Your task to perform on an android device: turn off improve location accuracy Image 0: 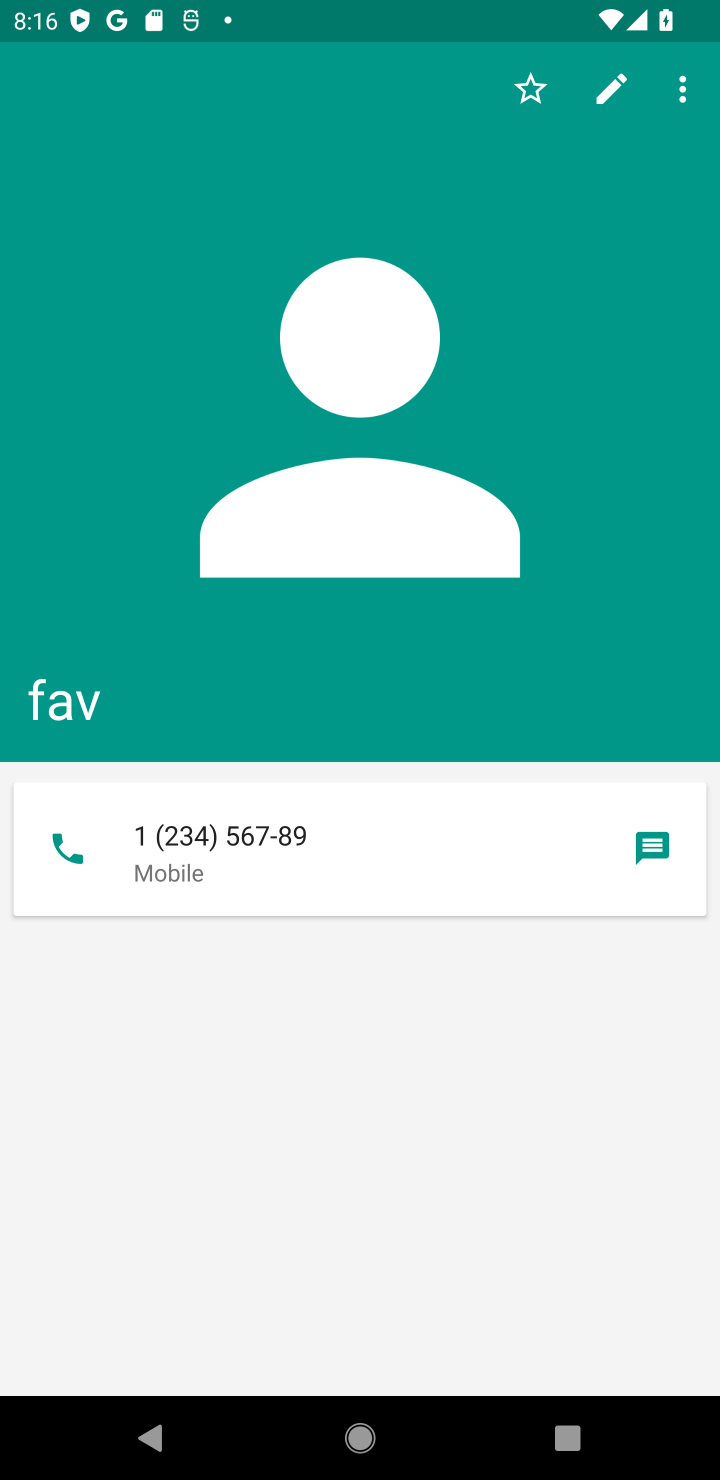
Step 0: press home button
Your task to perform on an android device: turn off improve location accuracy Image 1: 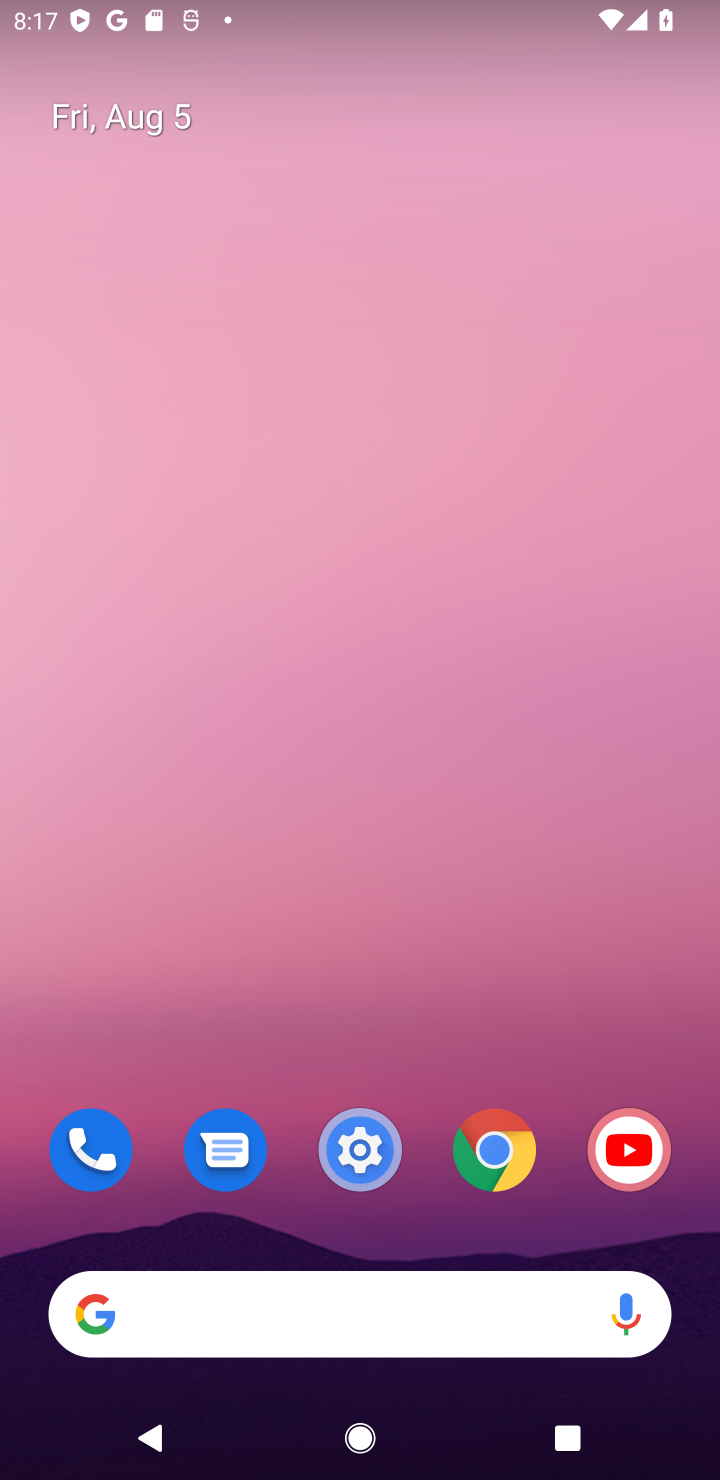
Step 1: drag from (450, 1060) to (463, 272)
Your task to perform on an android device: turn off improve location accuracy Image 2: 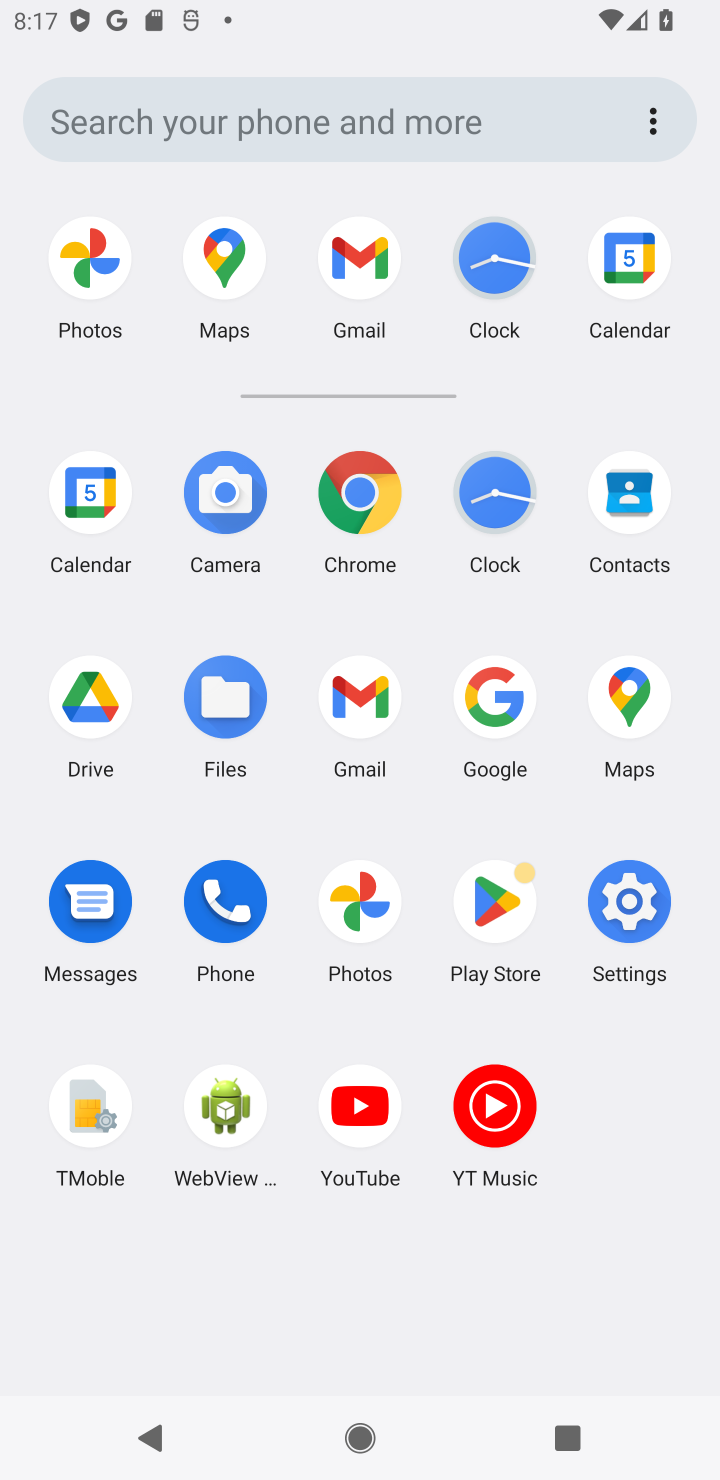
Step 2: click (632, 910)
Your task to perform on an android device: turn off improve location accuracy Image 3: 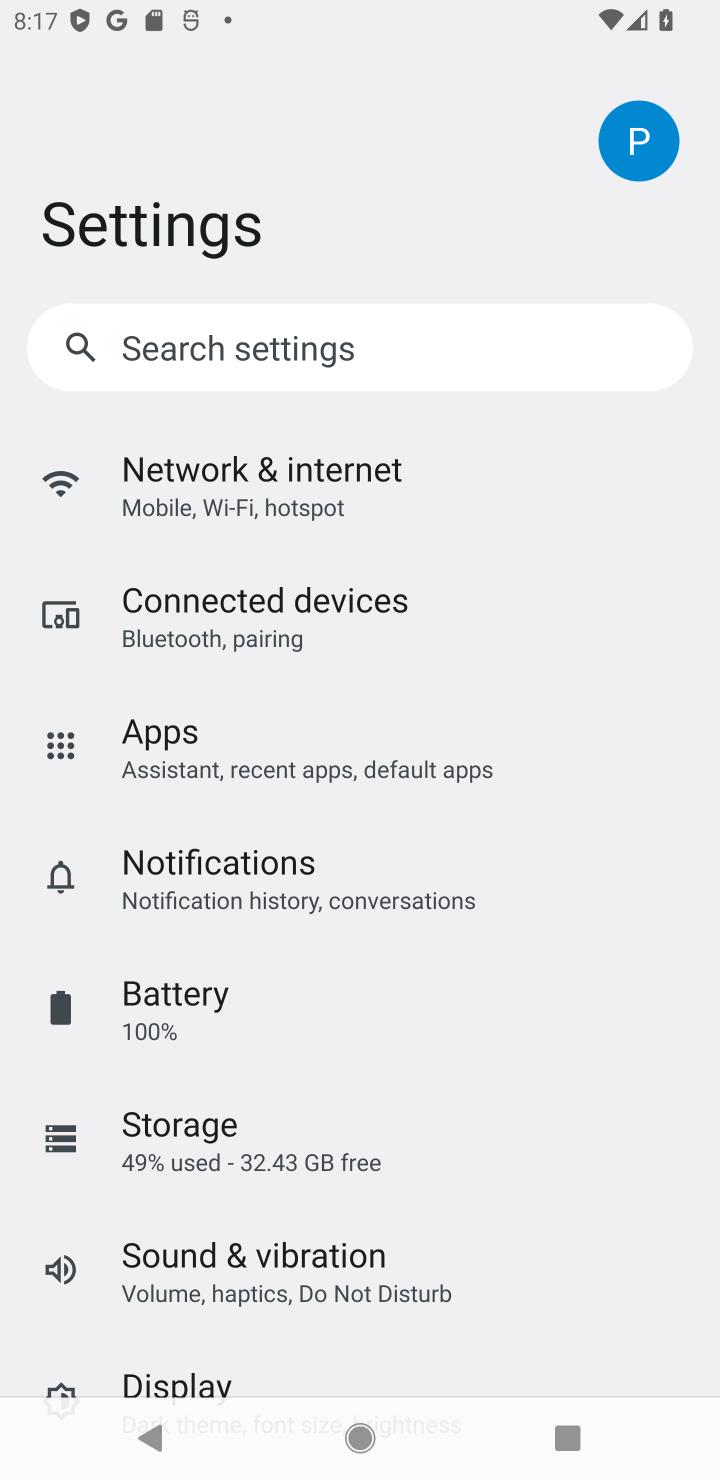
Step 3: drag from (634, 1059) to (624, 822)
Your task to perform on an android device: turn off improve location accuracy Image 4: 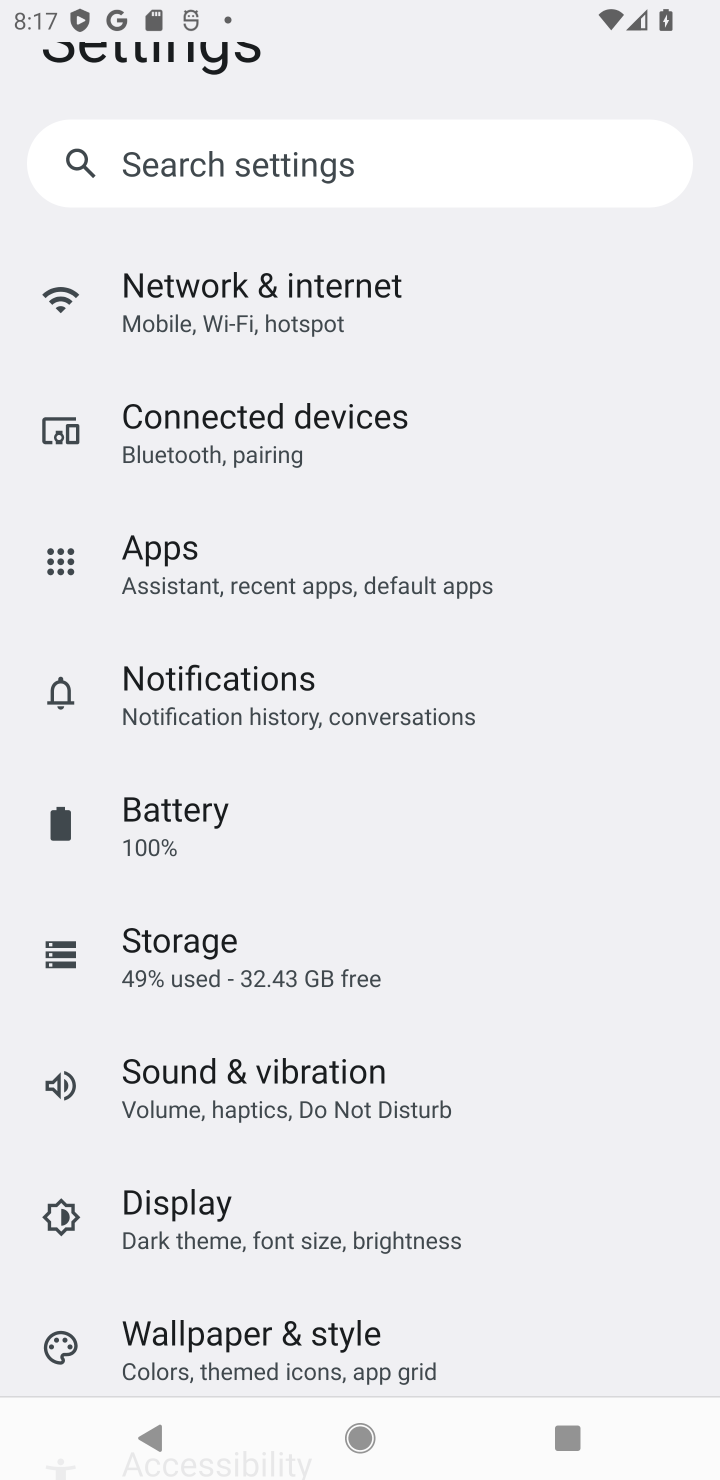
Step 4: drag from (568, 1045) to (566, 824)
Your task to perform on an android device: turn off improve location accuracy Image 5: 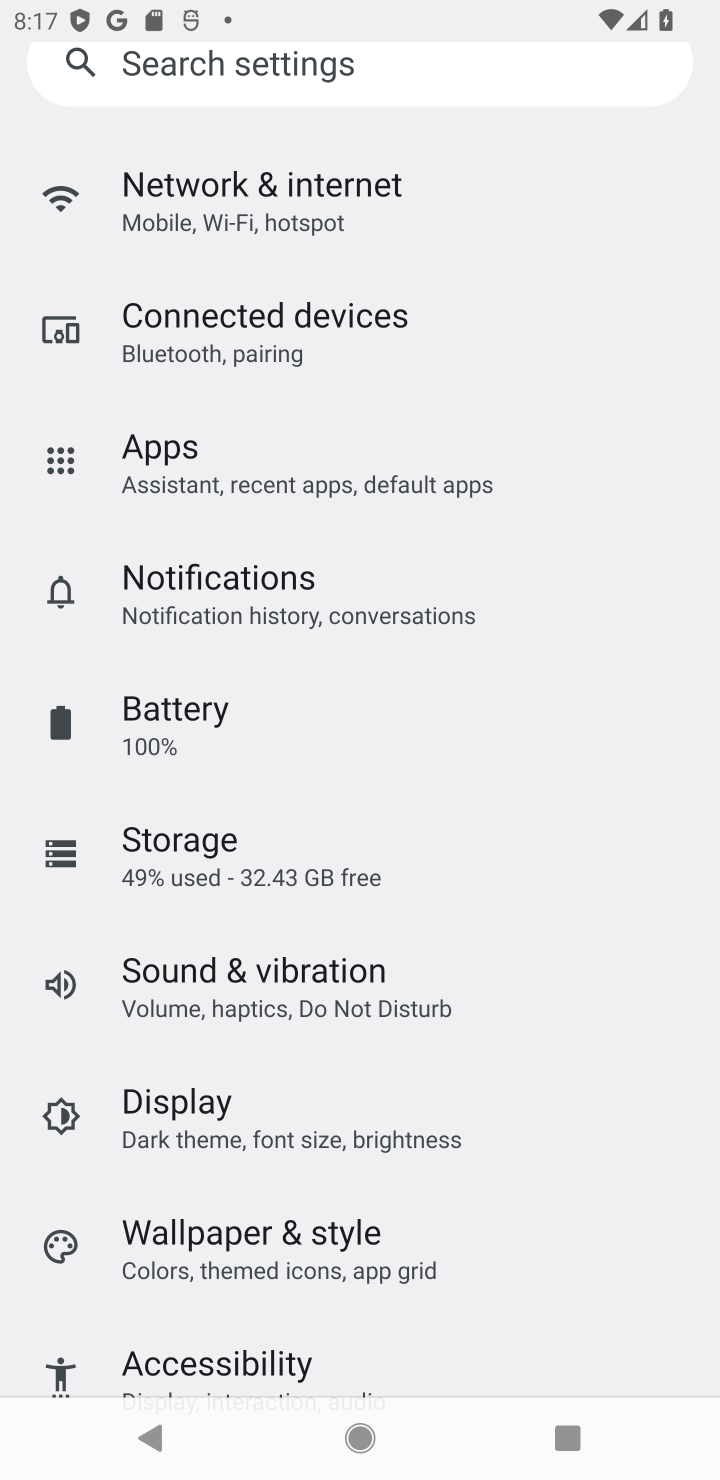
Step 5: drag from (562, 1017) to (530, 734)
Your task to perform on an android device: turn off improve location accuracy Image 6: 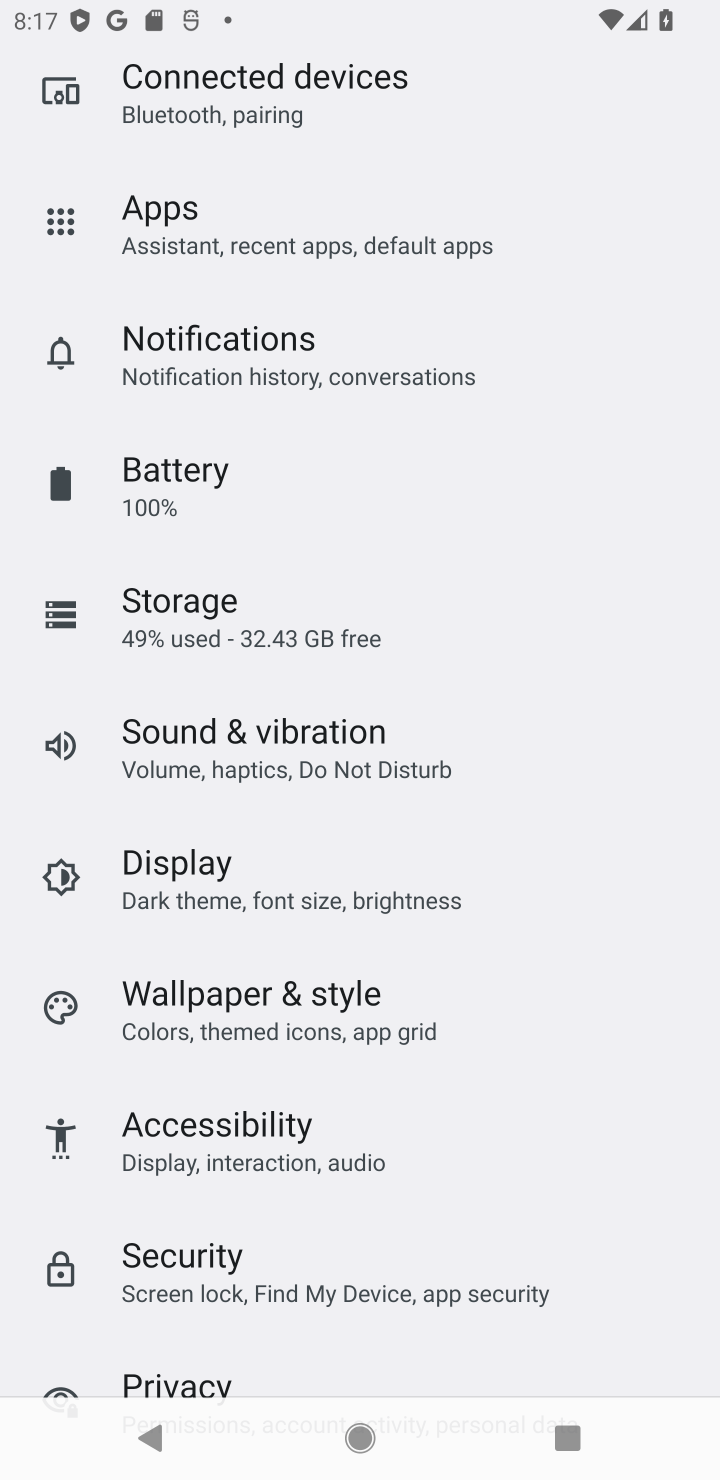
Step 6: drag from (560, 1132) to (564, 882)
Your task to perform on an android device: turn off improve location accuracy Image 7: 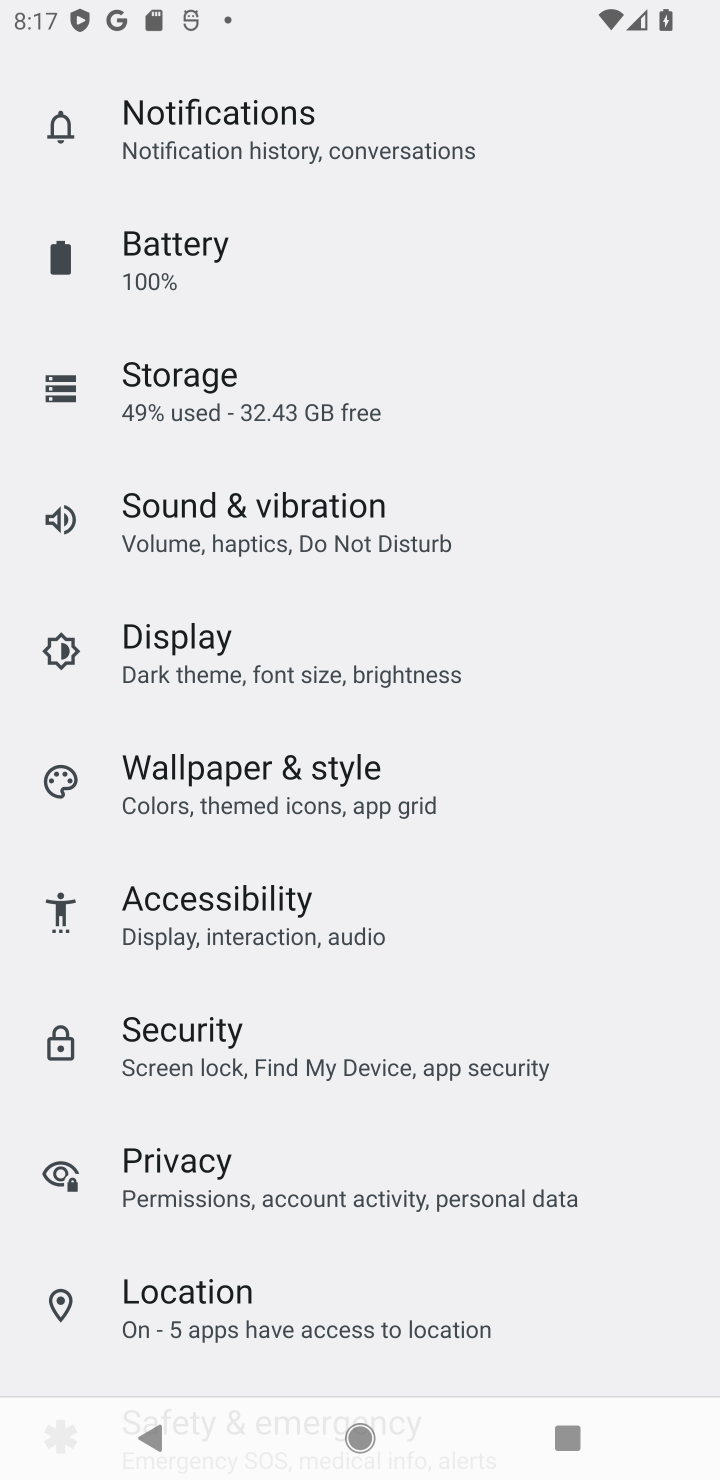
Step 7: drag from (589, 1151) to (600, 838)
Your task to perform on an android device: turn off improve location accuracy Image 8: 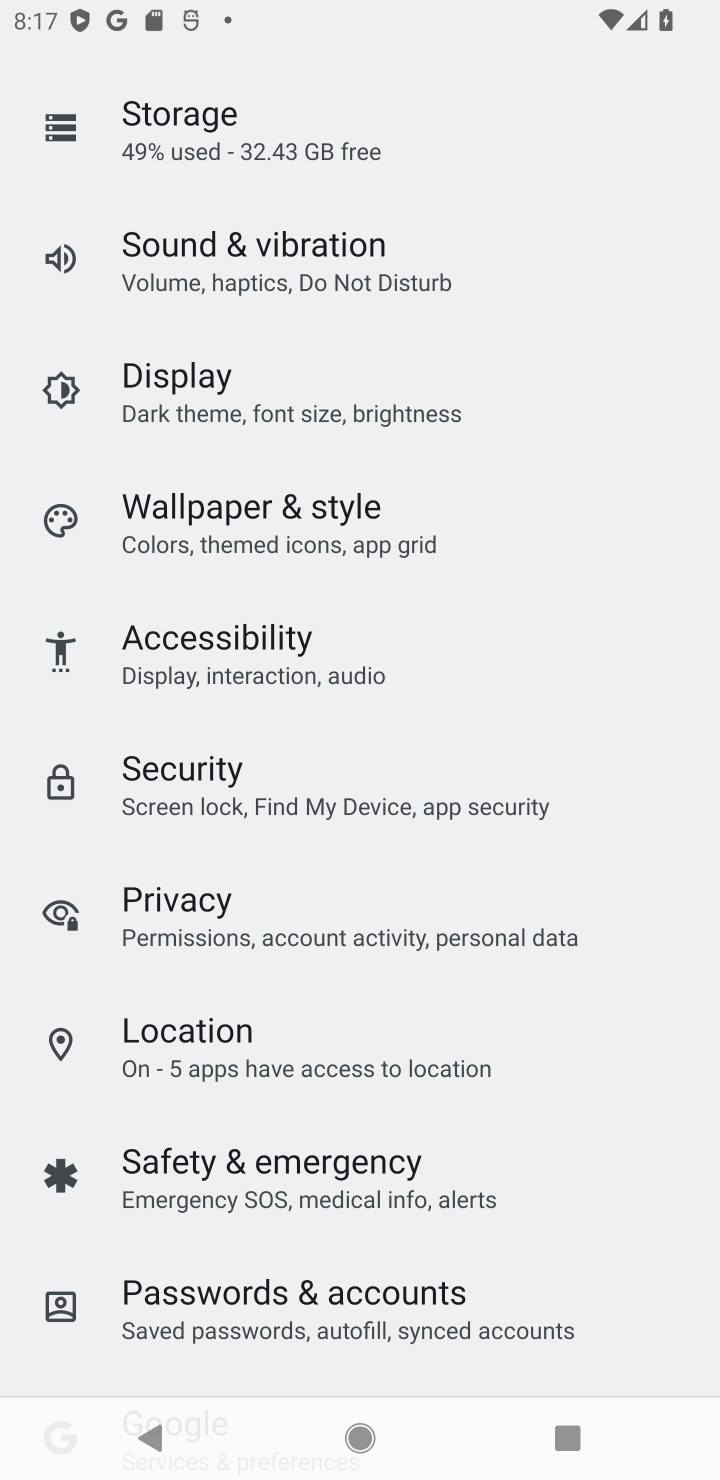
Step 8: drag from (584, 1098) to (580, 861)
Your task to perform on an android device: turn off improve location accuracy Image 9: 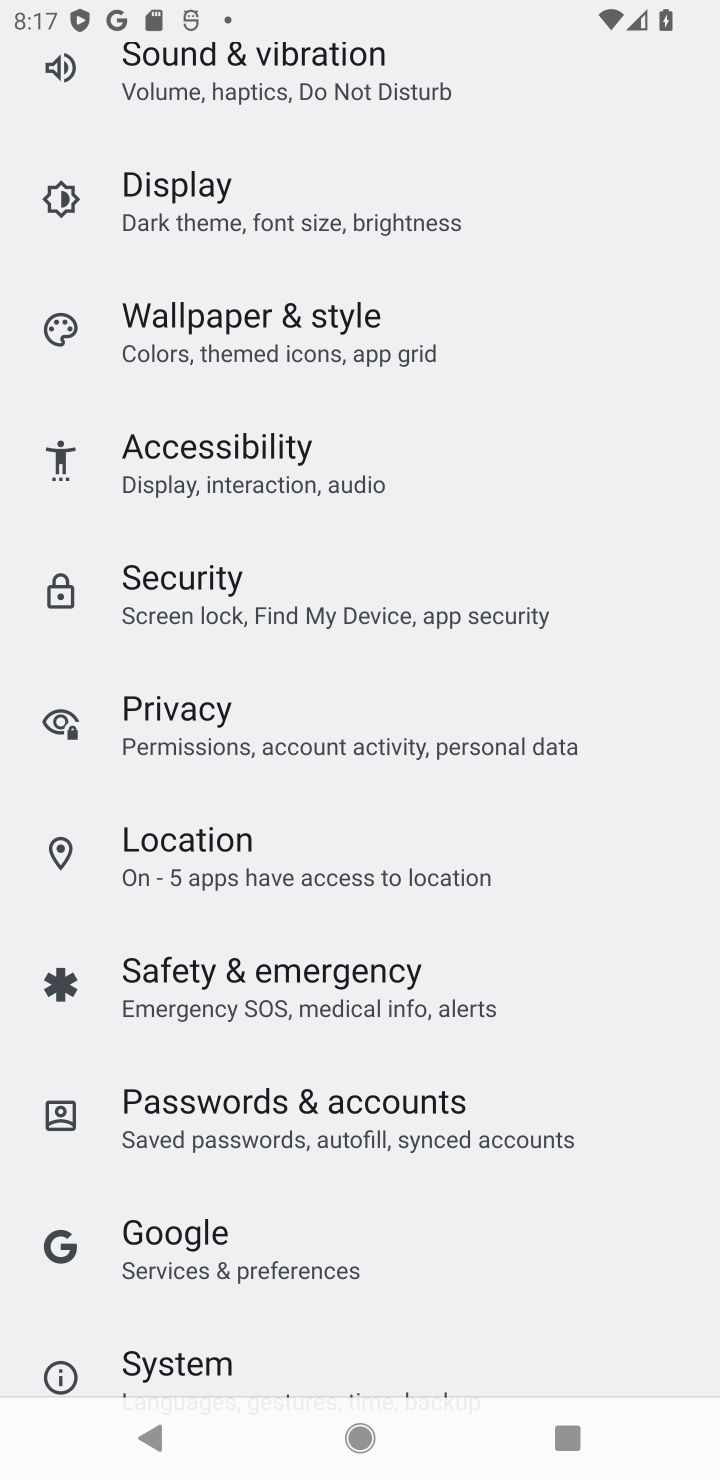
Step 9: click (503, 873)
Your task to perform on an android device: turn off improve location accuracy Image 10: 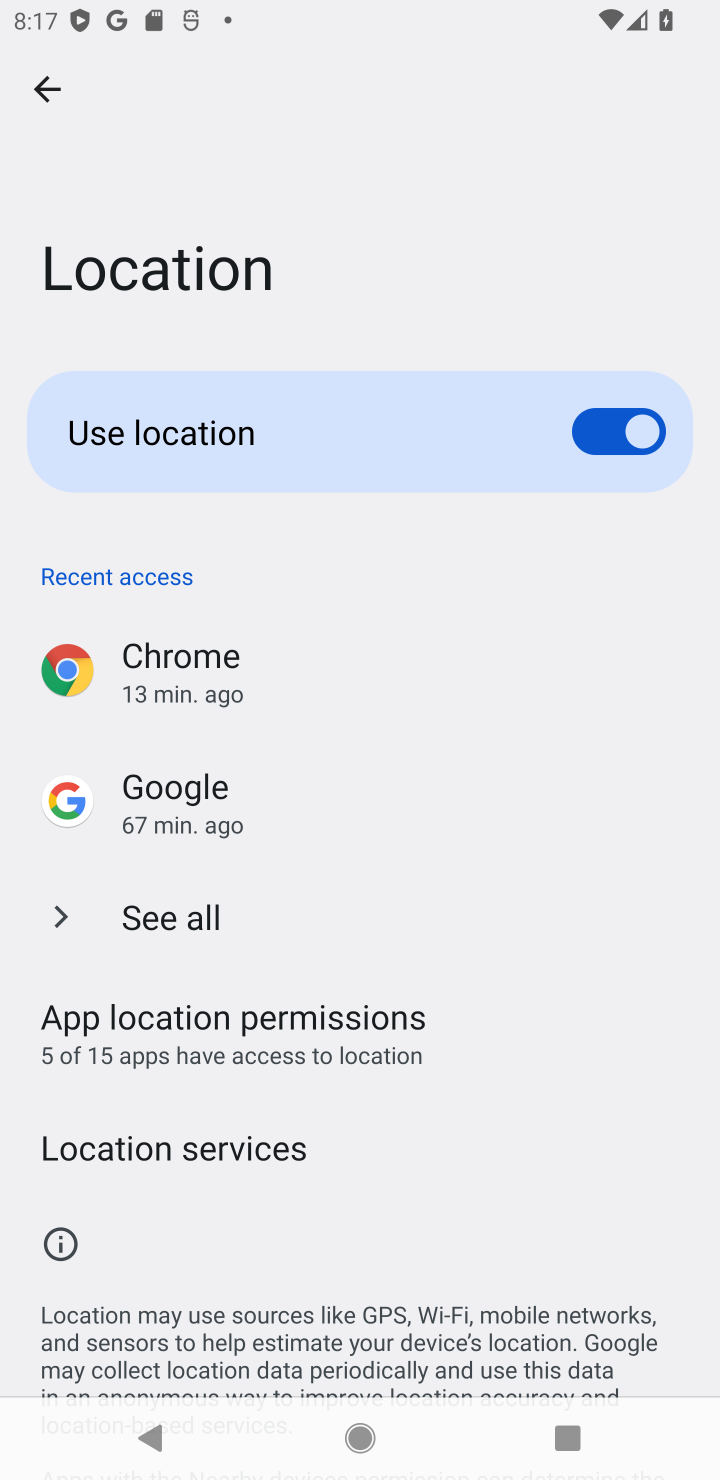
Step 10: click (324, 1160)
Your task to perform on an android device: turn off improve location accuracy Image 11: 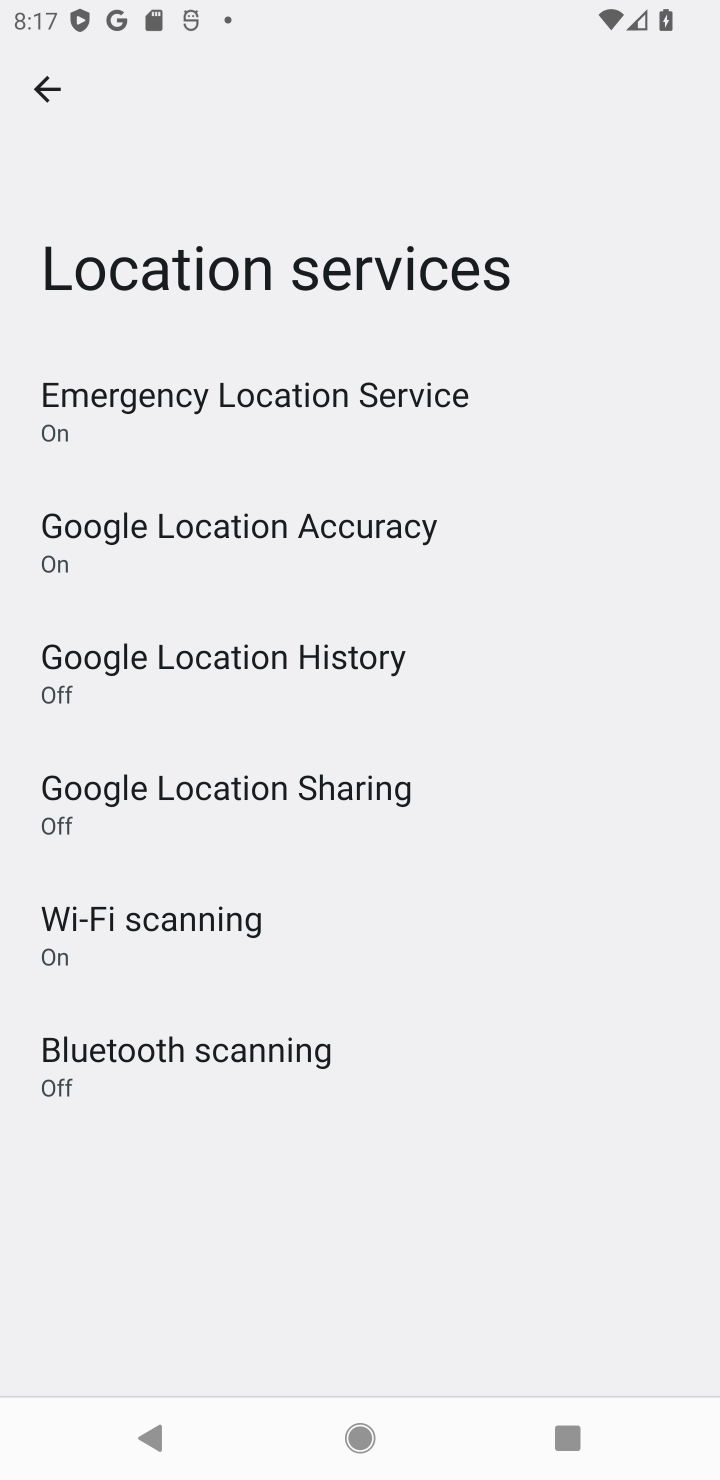
Step 11: click (333, 534)
Your task to perform on an android device: turn off improve location accuracy Image 12: 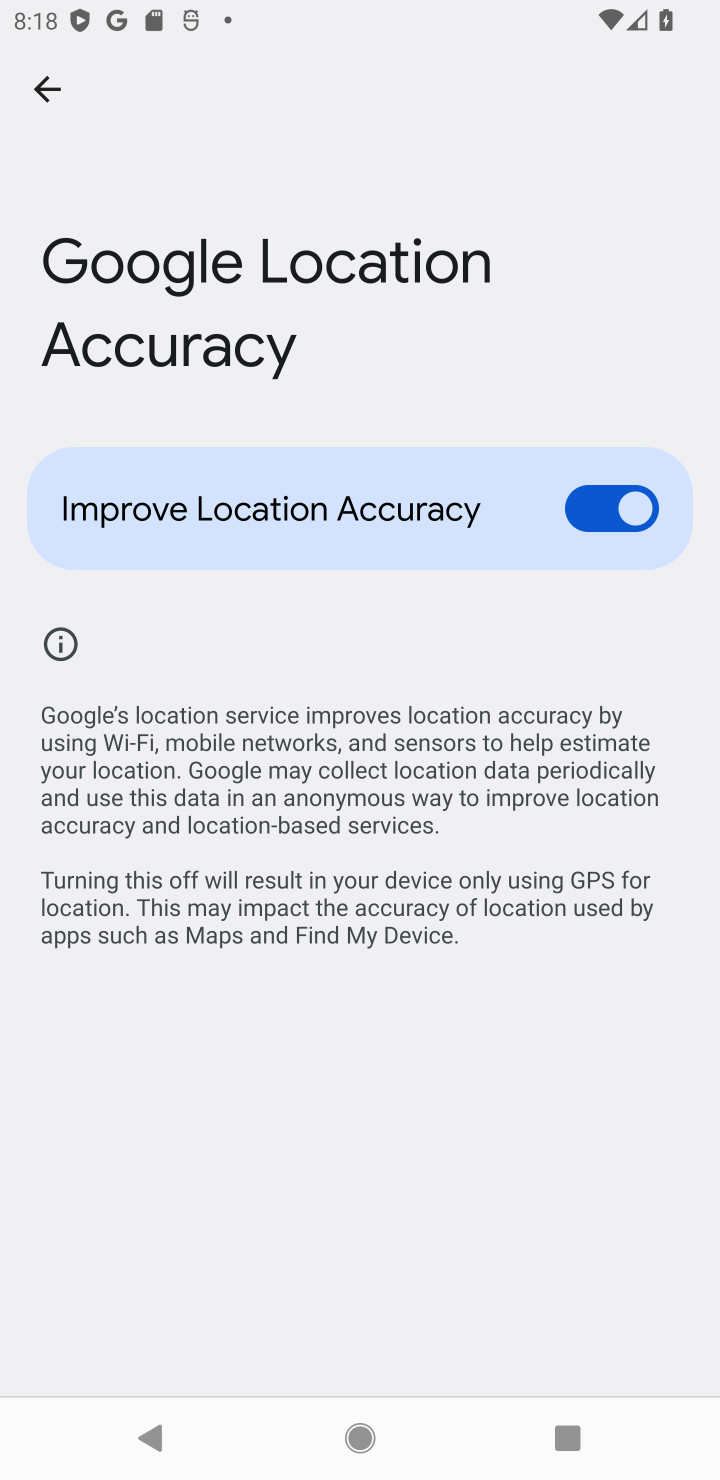
Step 12: click (593, 505)
Your task to perform on an android device: turn off improve location accuracy Image 13: 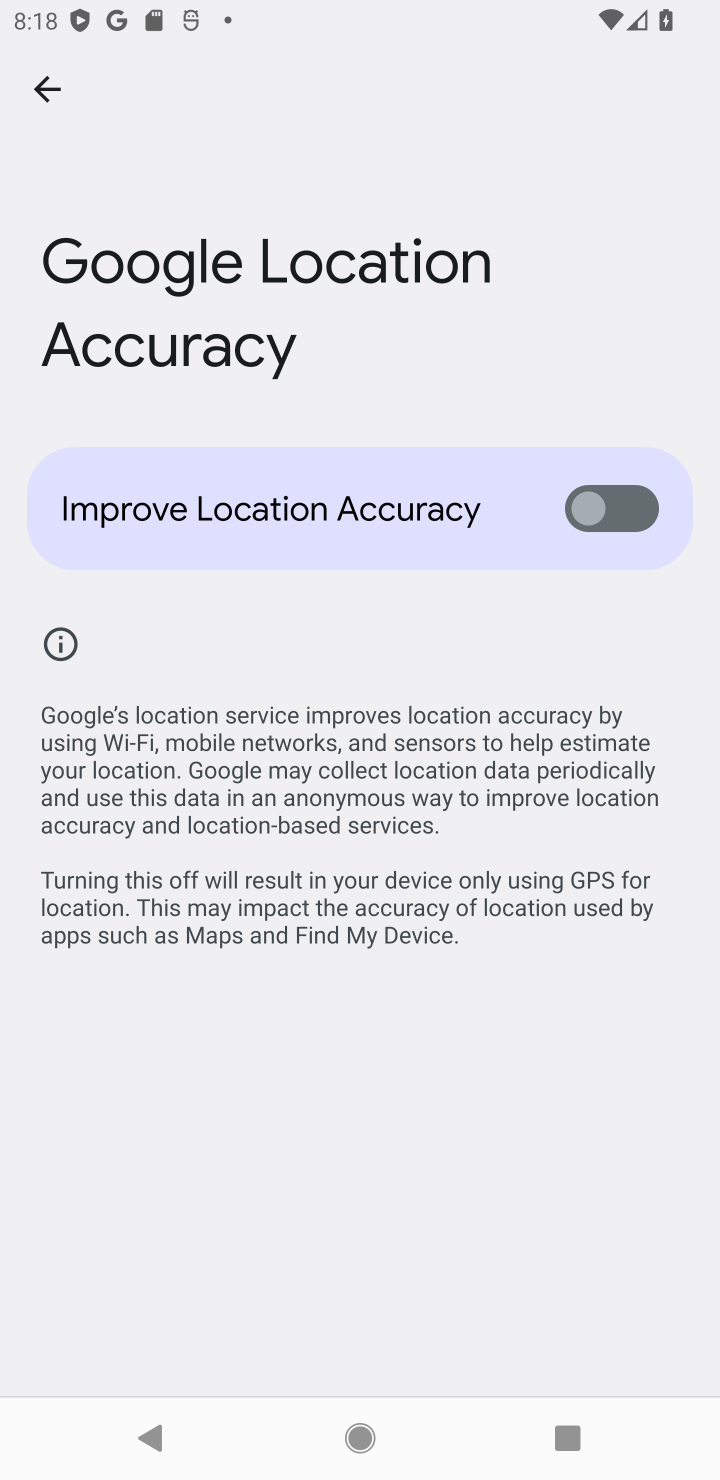
Step 13: task complete